Your task to perform on an android device: Go to sound settings Image 0: 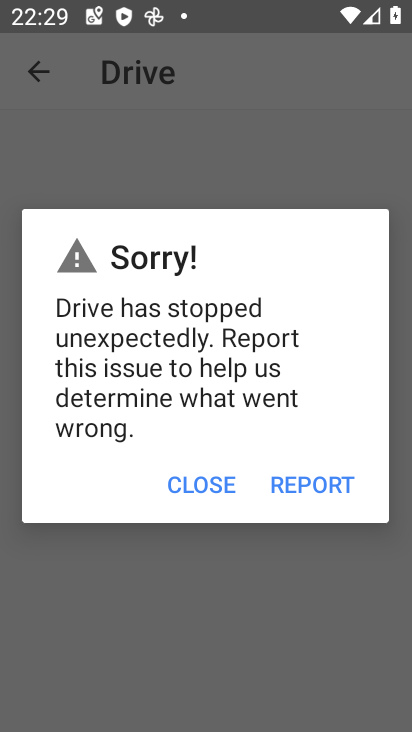
Step 0: press home button
Your task to perform on an android device: Go to sound settings Image 1: 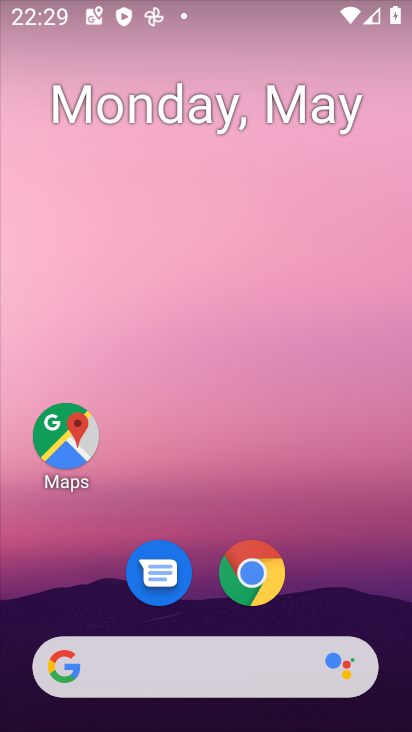
Step 1: drag from (363, 569) to (323, 51)
Your task to perform on an android device: Go to sound settings Image 2: 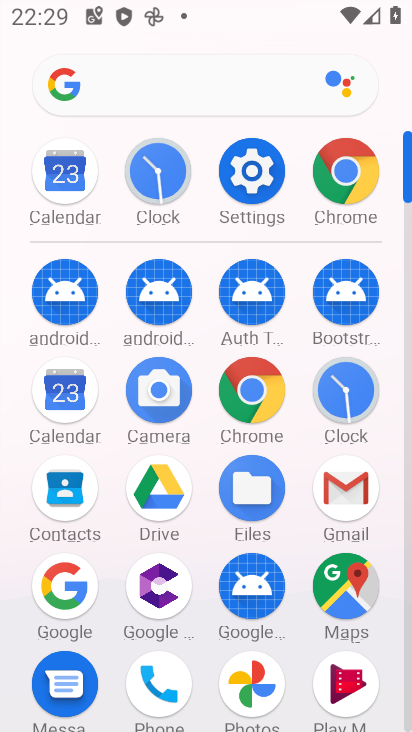
Step 2: click (243, 204)
Your task to perform on an android device: Go to sound settings Image 3: 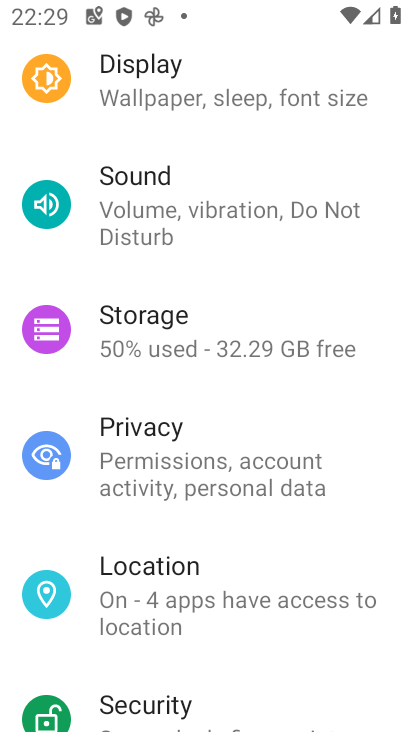
Step 3: click (256, 224)
Your task to perform on an android device: Go to sound settings Image 4: 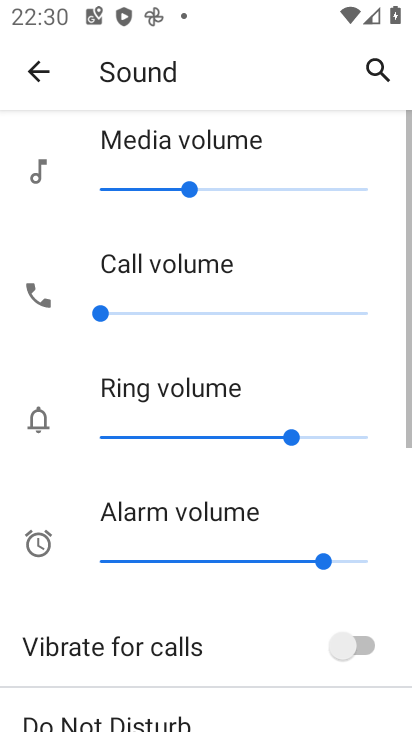
Step 4: task complete